Your task to perform on an android device: delete a single message in the gmail app Image 0: 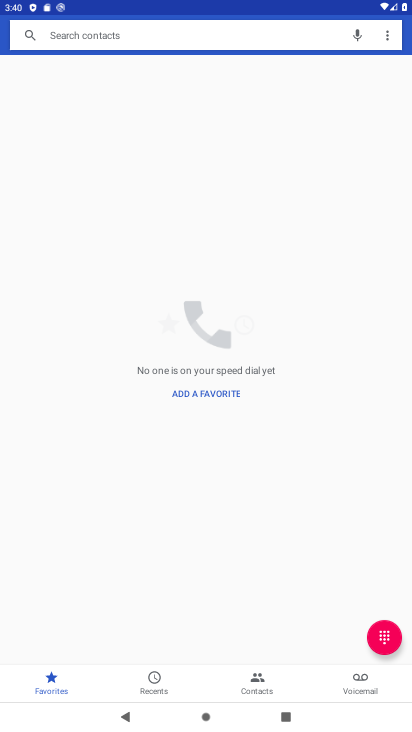
Step 0: press home button
Your task to perform on an android device: delete a single message in the gmail app Image 1: 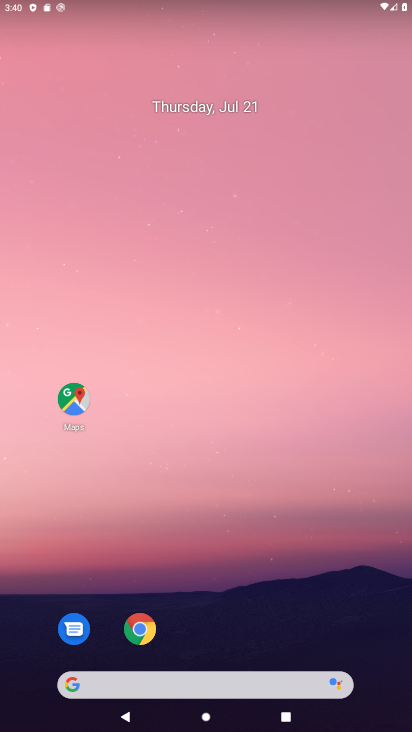
Step 1: drag from (292, 595) to (324, 109)
Your task to perform on an android device: delete a single message in the gmail app Image 2: 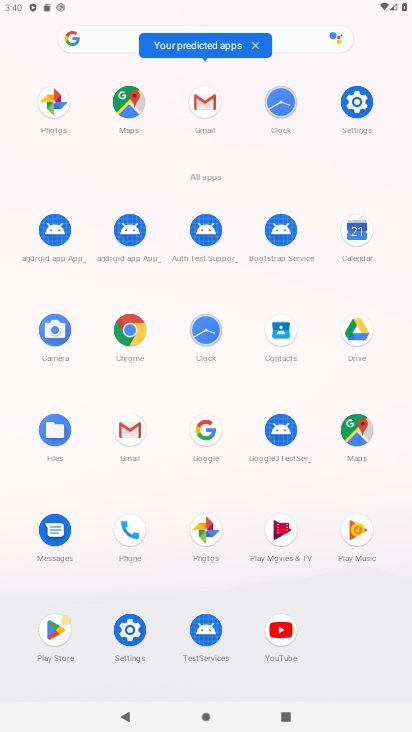
Step 2: click (208, 99)
Your task to perform on an android device: delete a single message in the gmail app Image 3: 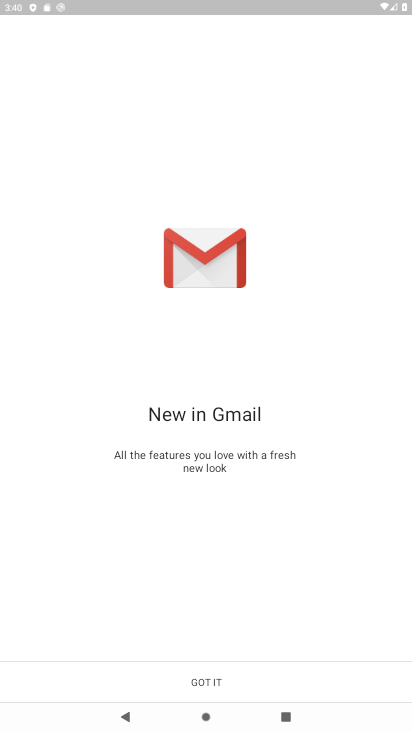
Step 3: click (207, 688)
Your task to perform on an android device: delete a single message in the gmail app Image 4: 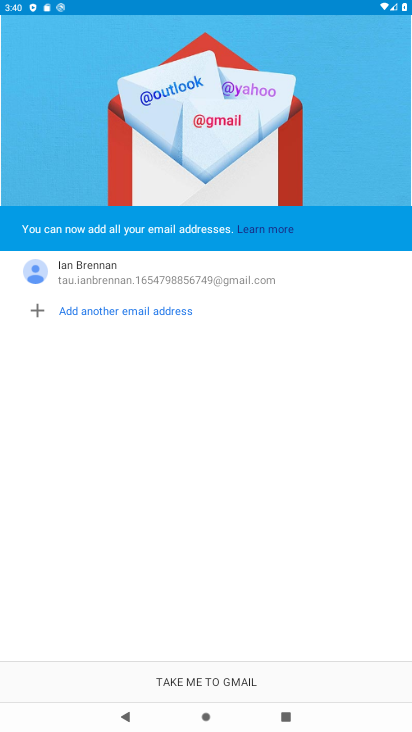
Step 4: click (199, 690)
Your task to perform on an android device: delete a single message in the gmail app Image 5: 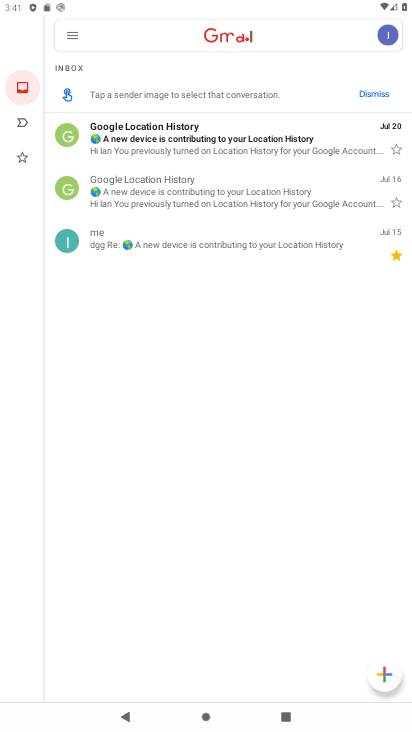
Step 5: click (136, 174)
Your task to perform on an android device: delete a single message in the gmail app Image 6: 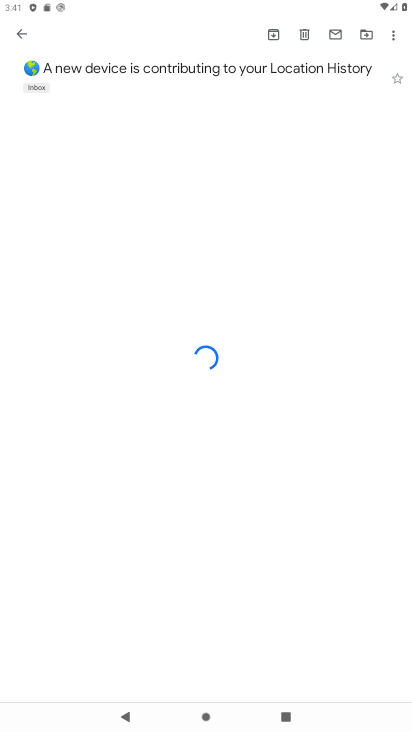
Step 6: click (312, 31)
Your task to perform on an android device: delete a single message in the gmail app Image 7: 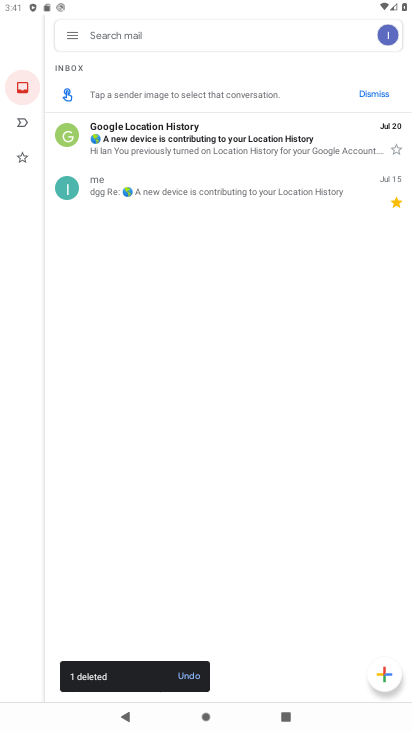
Step 7: task complete